Your task to perform on an android device: open a new tab in the chrome app Image 0: 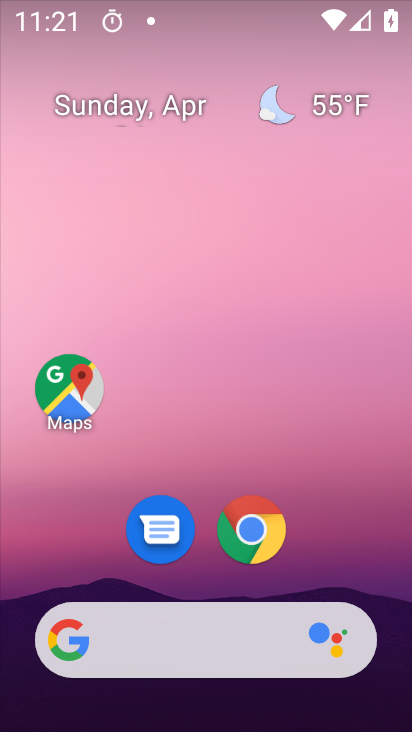
Step 0: drag from (219, 601) to (175, 725)
Your task to perform on an android device: open a new tab in the chrome app Image 1: 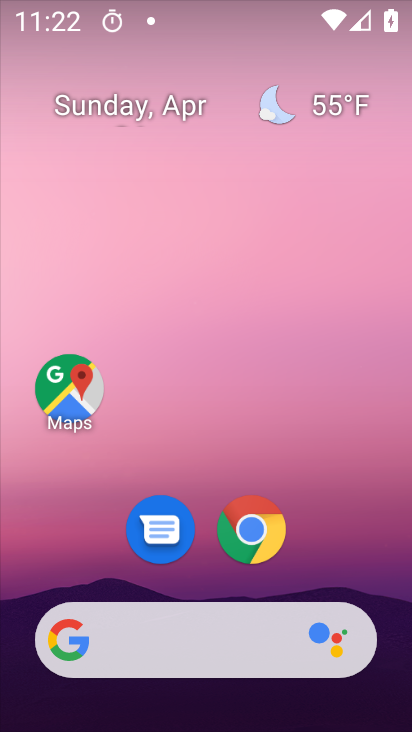
Step 1: click (262, 512)
Your task to perform on an android device: open a new tab in the chrome app Image 2: 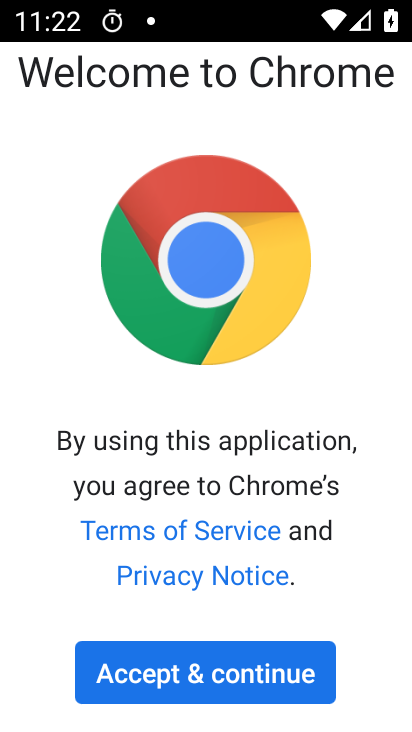
Step 2: click (233, 668)
Your task to perform on an android device: open a new tab in the chrome app Image 3: 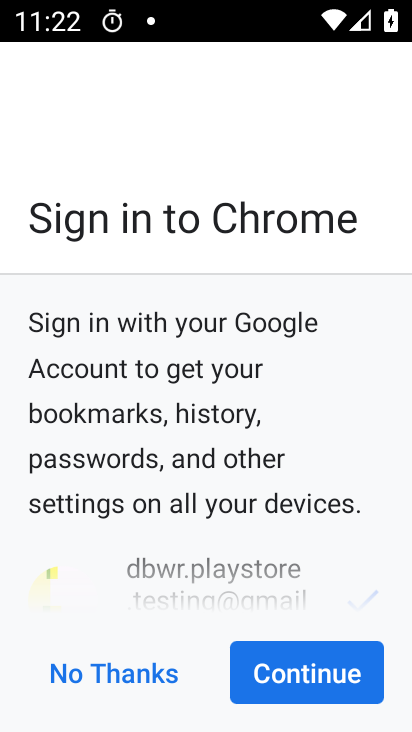
Step 3: click (266, 674)
Your task to perform on an android device: open a new tab in the chrome app Image 4: 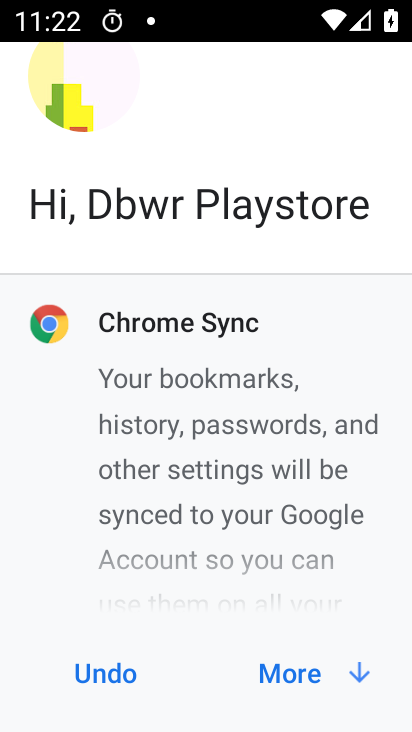
Step 4: click (270, 677)
Your task to perform on an android device: open a new tab in the chrome app Image 5: 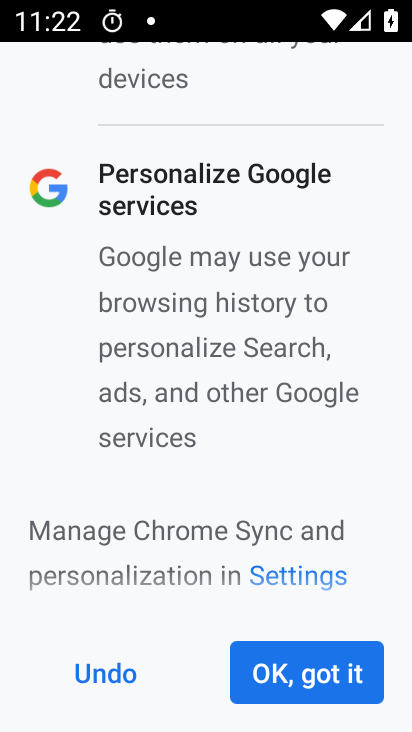
Step 5: click (270, 677)
Your task to perform on an android device: open a new tab in the chrome app Image 6: 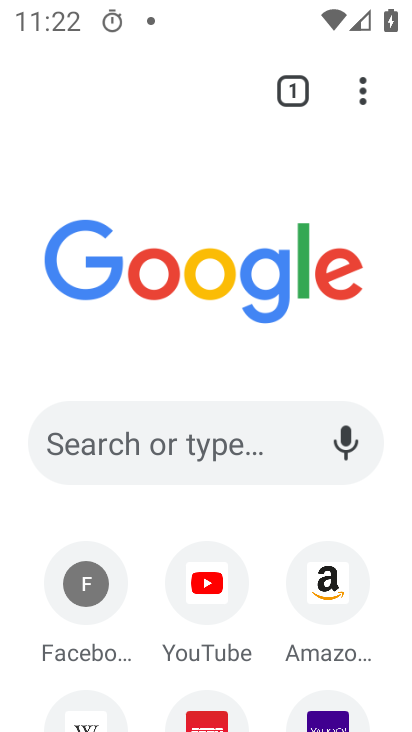
Step 6: click (295, 94)
Your task to perform on an android device: open a new tab in the chrome app Image 7: 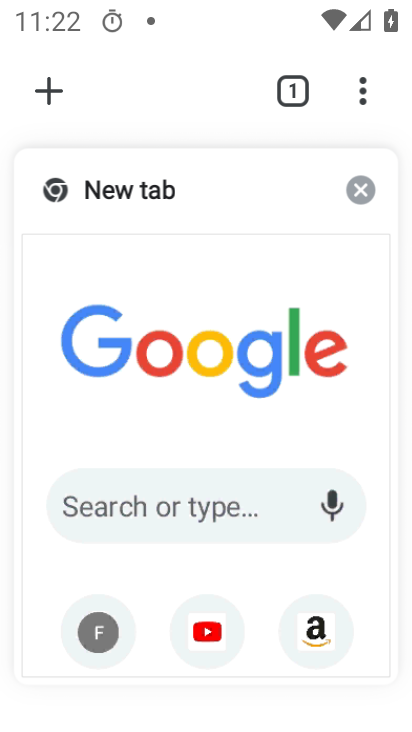
Step 7: click (39, 82)
Your task to perform on an android device: open a new tab in the chrome app Image 8: 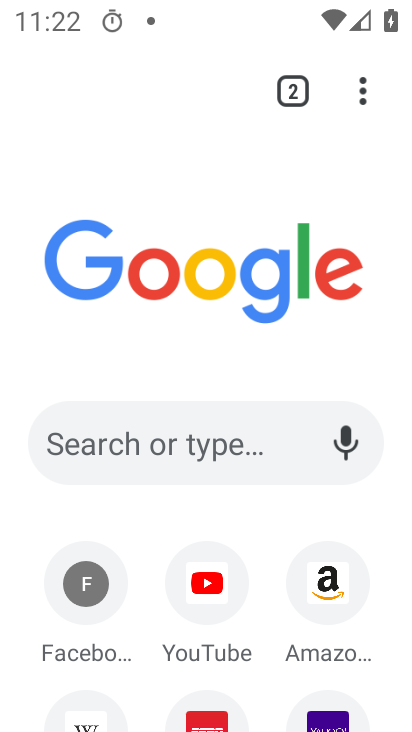
Step 8: task complete